Your task to perform on an android device: add a contact Image 0: 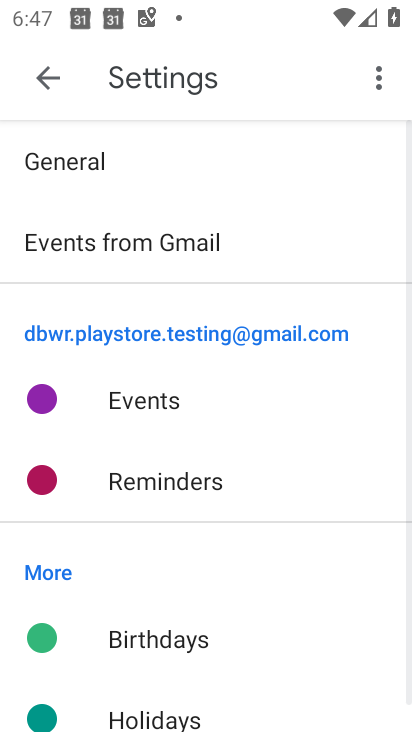
Step 0: press home button
Your task to perform on an android device: add a contact Image 1: 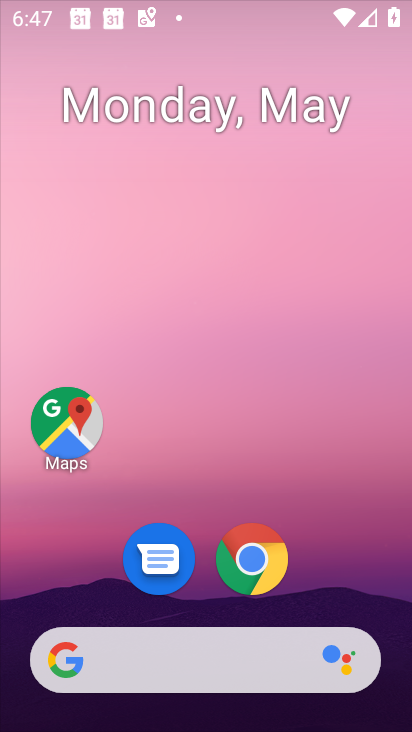
Step 1: drag from (388, 660) to (296, 102)
Your task to perform on an android device: add a contact Image 2: 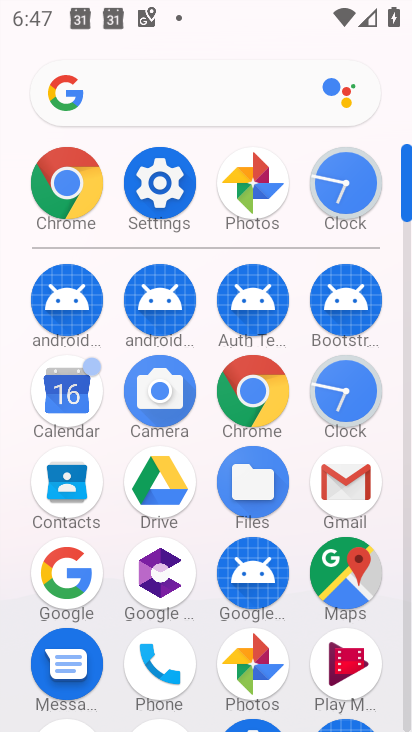
Step 2: click (73, 503)
Your task to perform on an android device: add a contact Image 3: 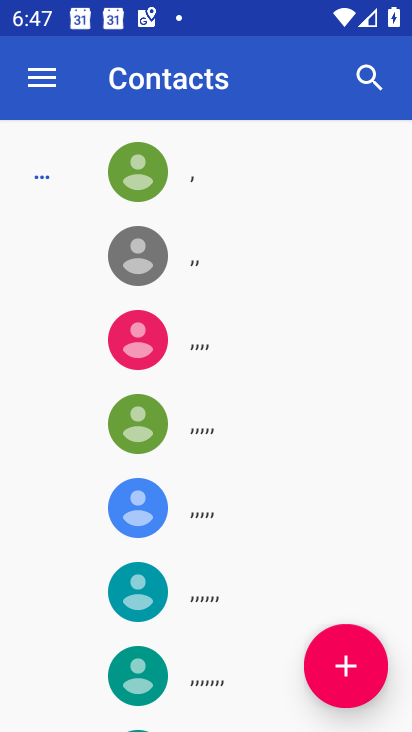
Step 3: click (369, 672)
Your task to perform on an android device: add a contact Image 4: 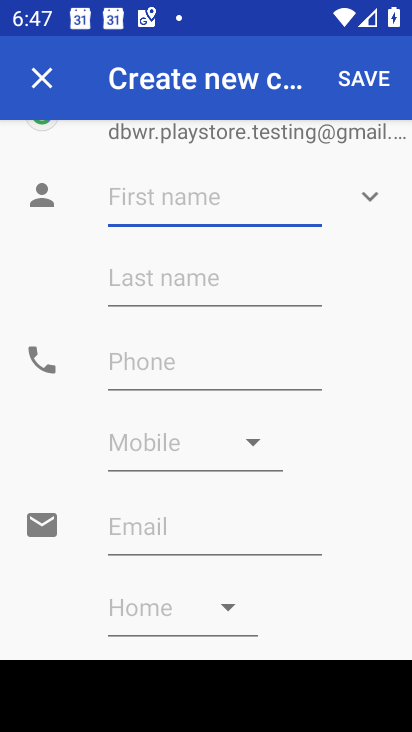
Step 4: type "payal"
Your task to perform on an android device: add a contact Image 5: 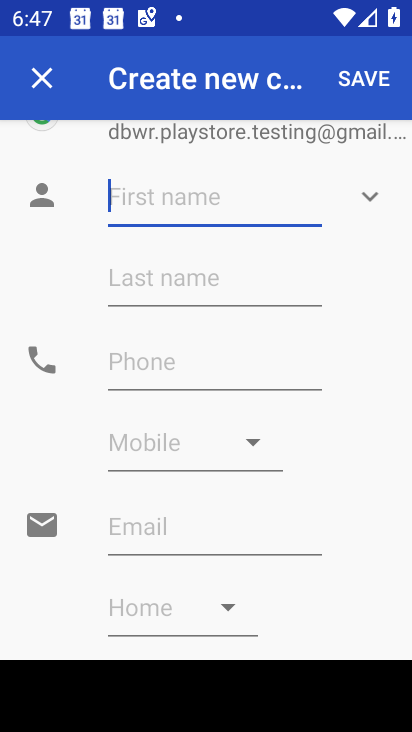
Step 5: click (376, 77)
Your task to perform on an android device: add a contact Image 6: 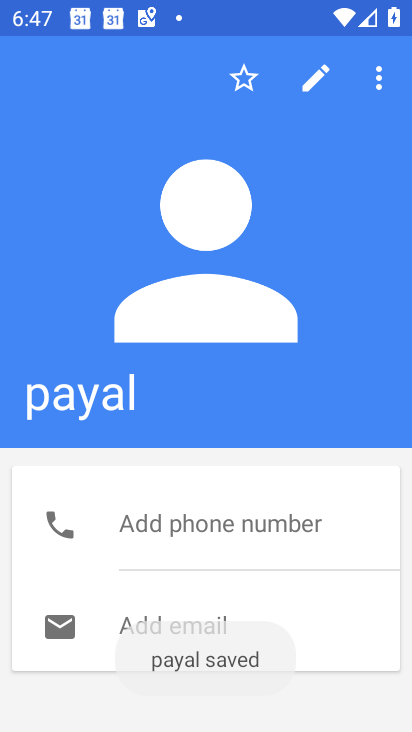
Step 6: task complete